Your task to perform on an android device: turn off airplane mode Image 0: 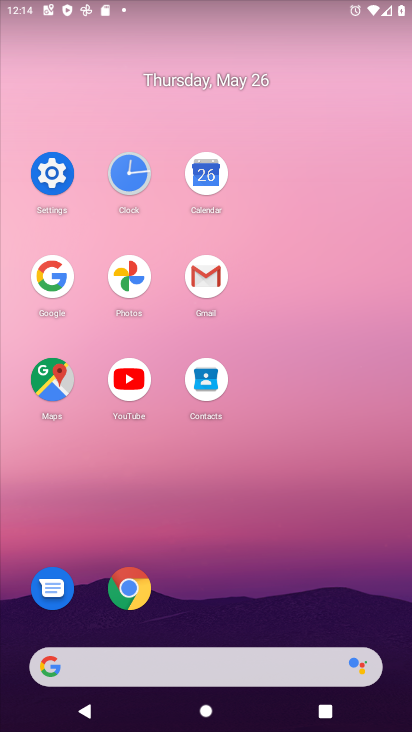
Step 0: click (46, 159)
Your task to perform on an android device: turn off airplane mode Image 1: 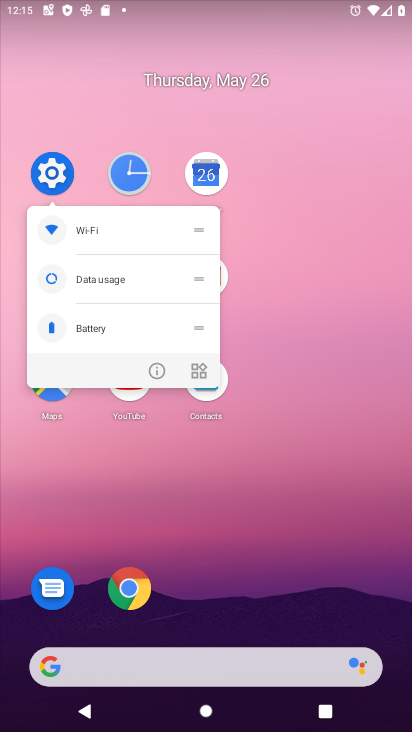
Step 1: click (41, 173)
Your task to perform on an android device: turn off airplane mode Image 2: 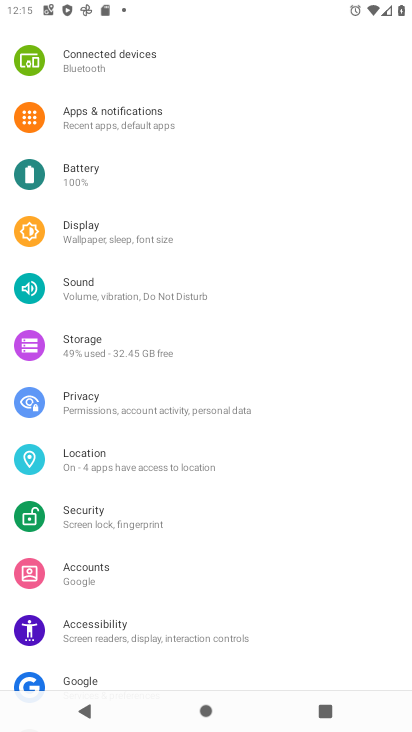
Step 2: drag from (247, 153) to (196, 570)
Your task to perform on an android device: turn off airplane mode Image 3: 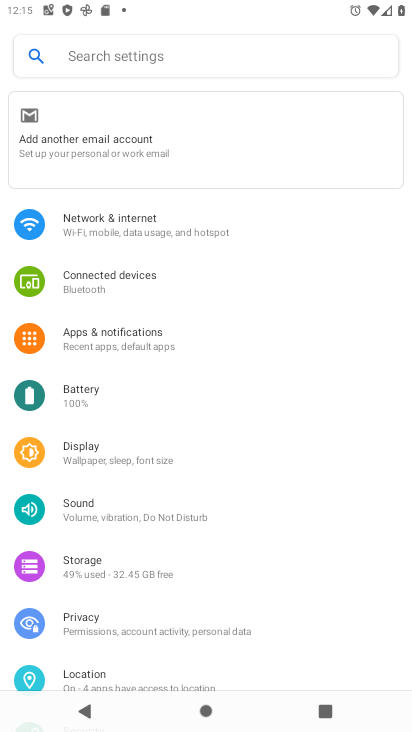
Step 3: click (228, 228)
Your task to perform on an android device: turn off airplane mode Image 4: 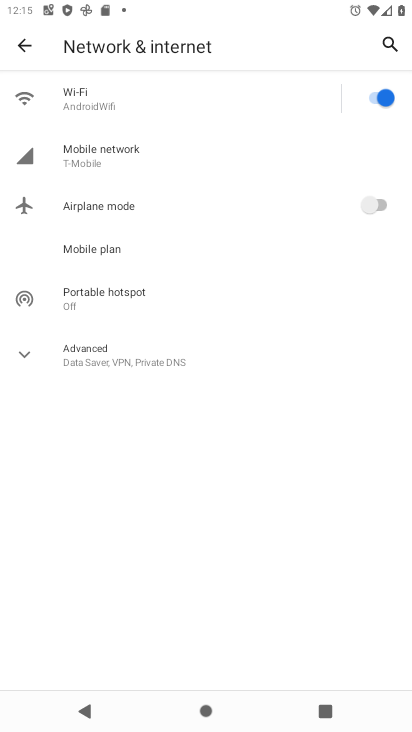
Step 4: task complete